Your task to perform on an android device: toggle javascript in the chrome app Image 0: 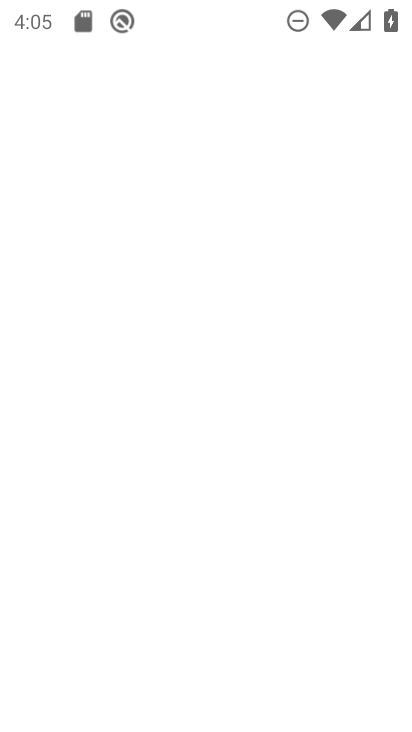
Step 0: drag from (216, 573) to (247, 173)
Your task to perform on an android device: toggle javascript in the chrome app Image 1: 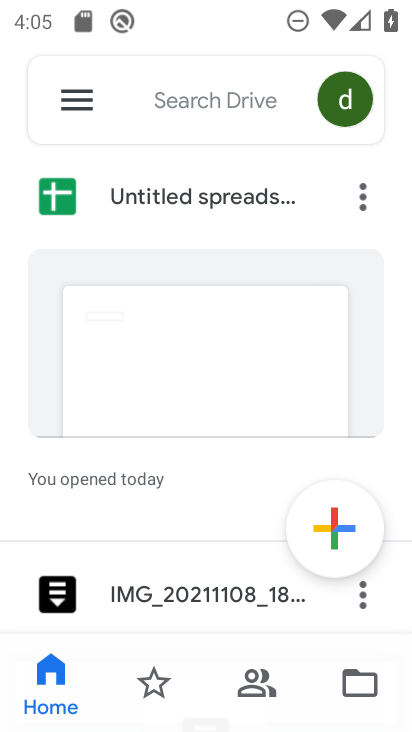
Step 1: press home button
Your task to perform on an android device: toggle javascript in the chrome app Image 2: 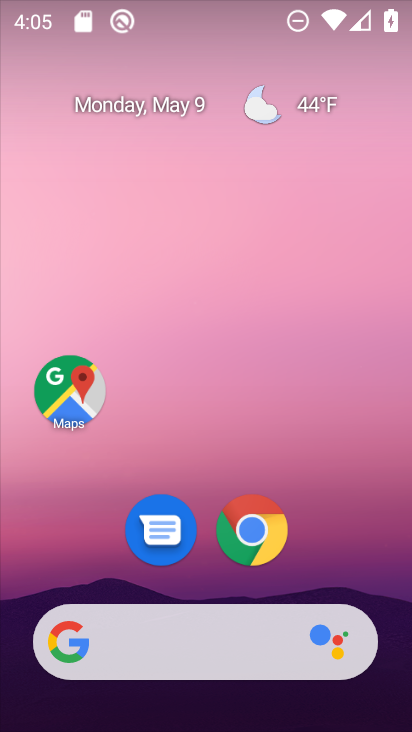
Step 2: click (245, 523)
Your task to perform on an android device: toggle javascript in the chrome app Image 3: 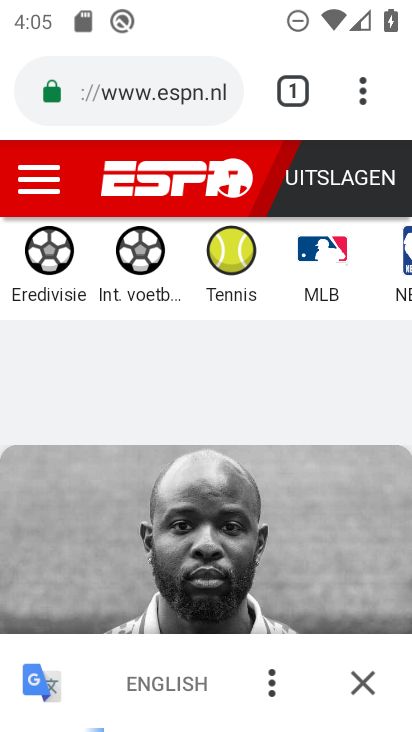
Step 3: click (364, 82)
Your task to perform on an android device: toggle javascript in the chrome app Image 4: 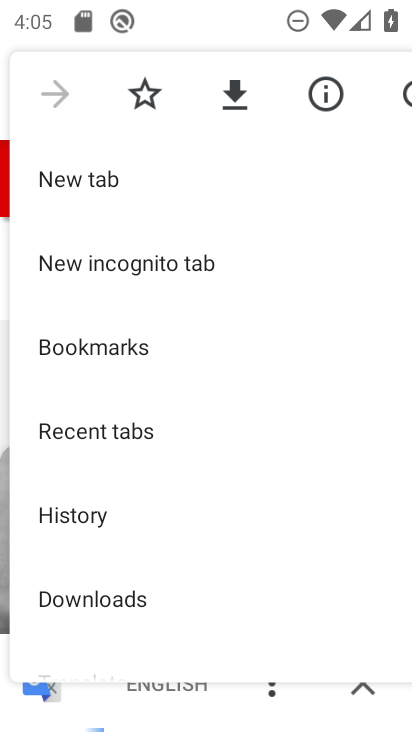
Step 4: drag from (156, 584) to (196, 154)
Your task to perform on an android device: toggle javascript in the chrome app Image 5: 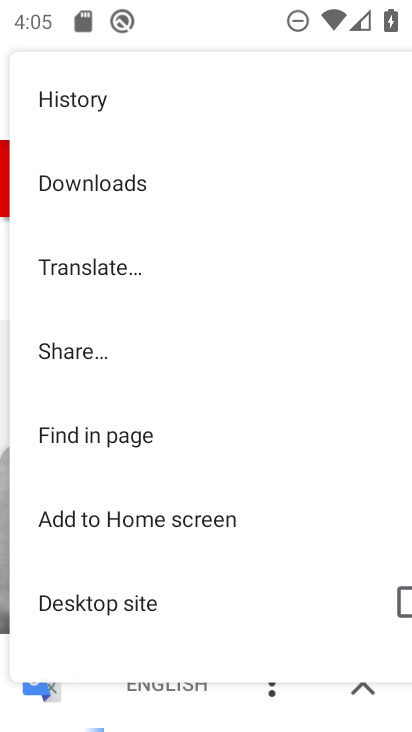
Step 5: drag from (181, 583) to (234, 163)
Your task to perform on an android device: toggle javascript in the chrome app Image 6: 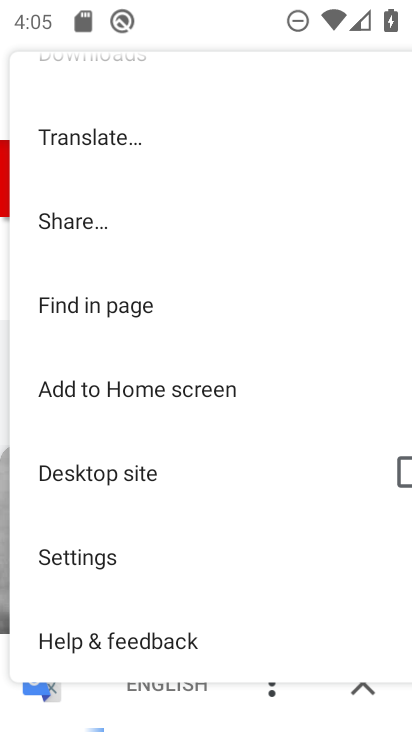
Step 6: click (131, 556)
Your task to perform on an android device: toggle javascript in the chrome app Image 7: 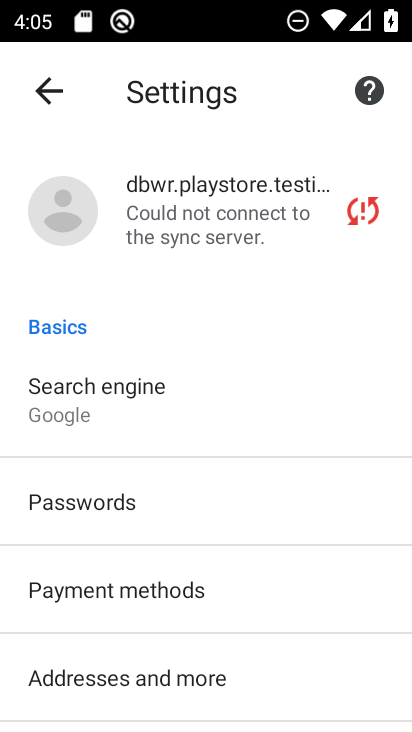
Step 7: drag from (240, 658) to (294, 293)
Your task to perform on an android device: toggle javascript in the chrome app Image 8: 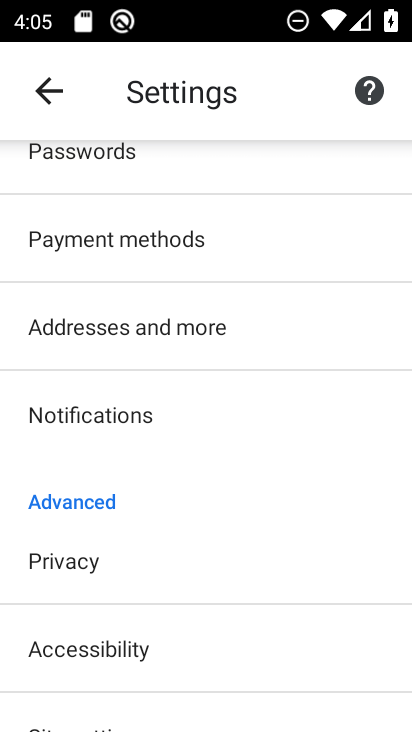
Step 8: drag from (177, 654) to (242, 379)
Your task to perform on an android device: toggle javascript in the chrome app Image 9: 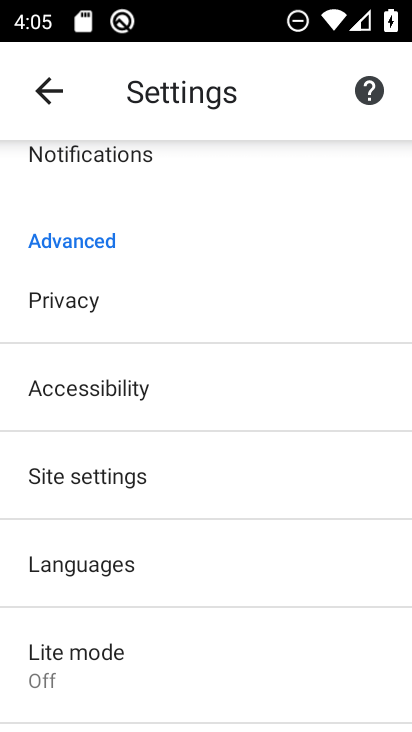
Step 9: click (160, 468)
Your task to perform on an android device: toggle javascript in the chrome app Image 10: 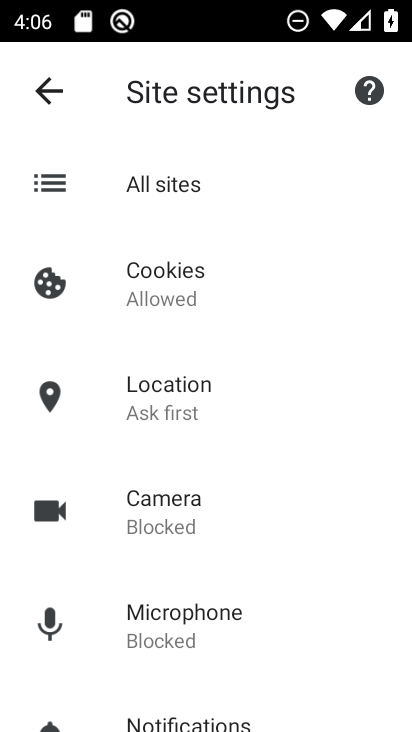
Step 10: drag from (239, 663) to (275, 378)
Your task to perform on an android device: toggle javascript in the chrome app Image 11: 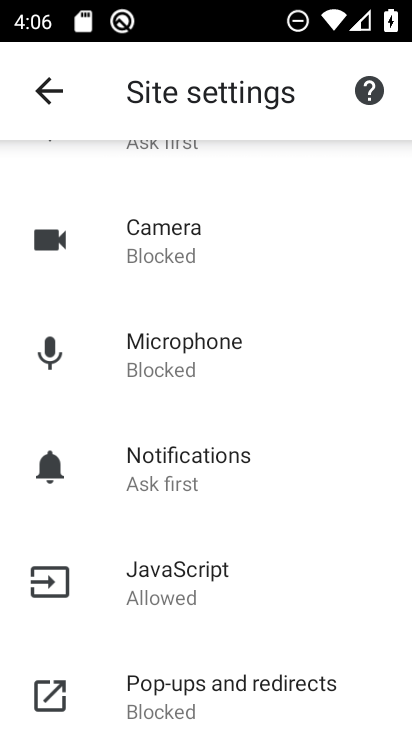
Step 11: click (216, 591)
Your task to perform on an android device: toggle javascript in the chrome app Image 12: 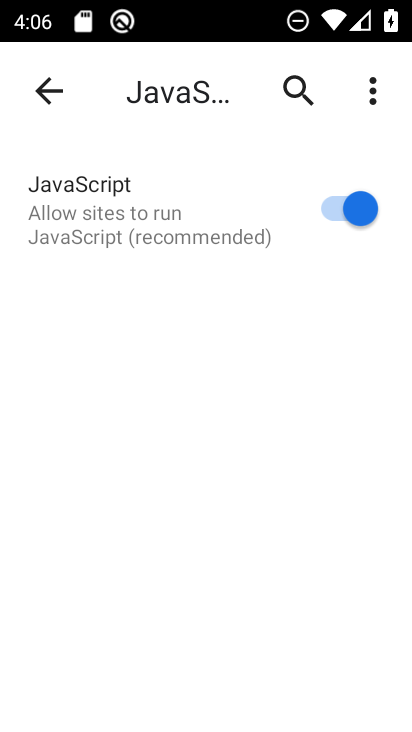
Step 12: task complete